Your task to perform on an android device: turn vacation reply on in the gmail app Image 0: 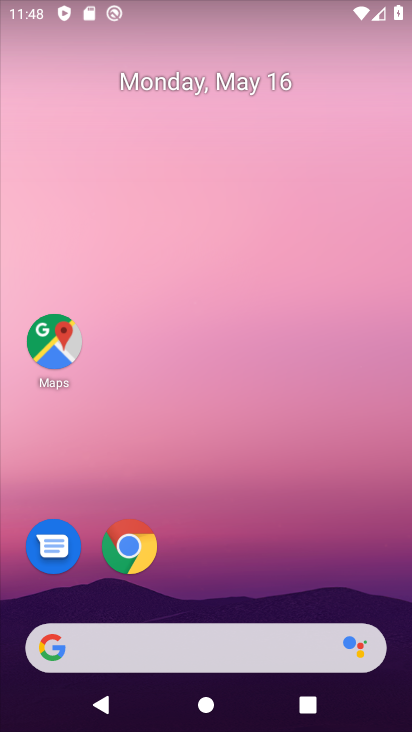
Step 0: drag from (396, 629) to (317, 36)
Your task to perform on an android device: turn vacation reply on in the gmail app Image 1: 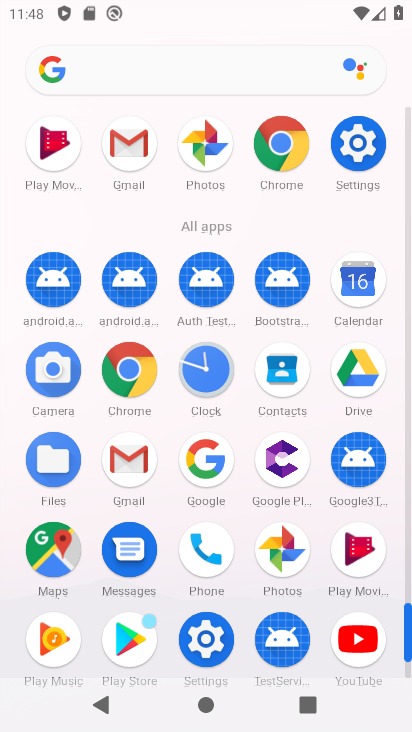
Step 1: click (408, 671)
Your task to perform on an android device: turn vacation reply on in the gmail app Image 2: 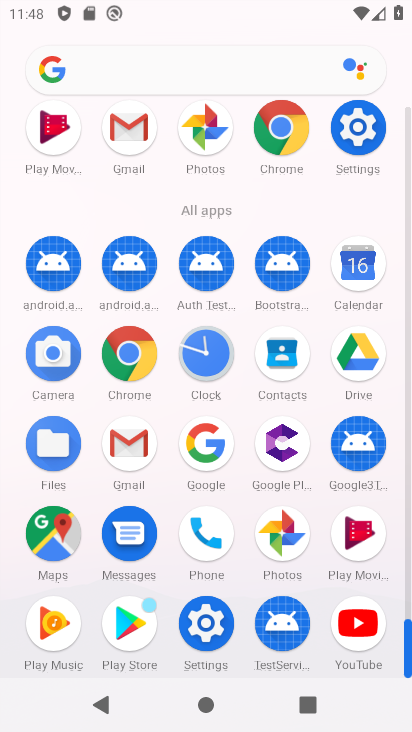
Step 2: click (127, 438)
Your task to perform on an android device: turn vacation reply on in the gmail app Image 3: 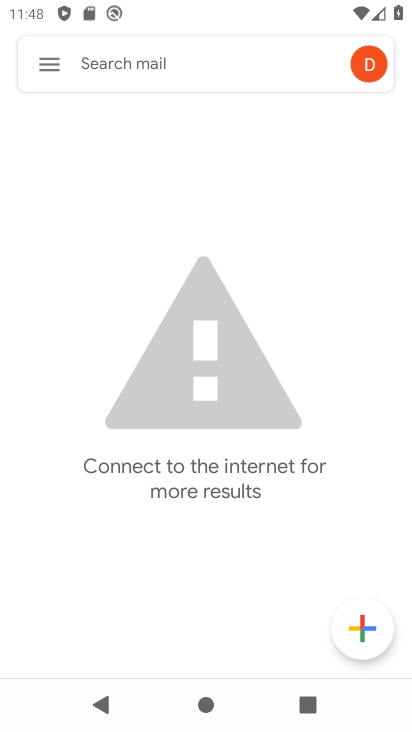
Step 3: click (47, 61)
Your task to perform on an android device: turn vacation reply on in the gmail app Image 4: 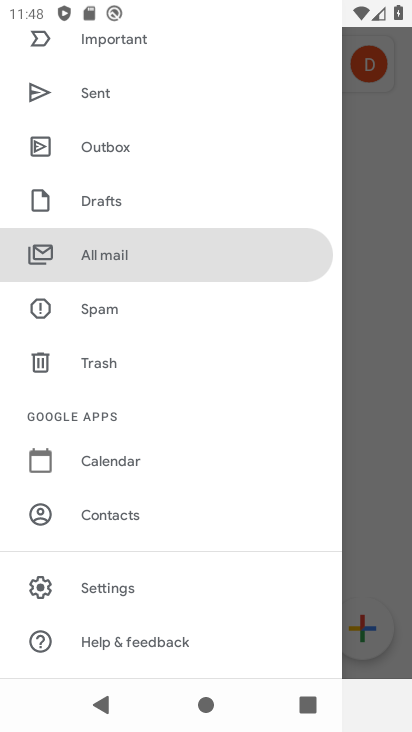
Step 4: click (113, 585)
Your task to perform on an android device: turn vacation reply on in the gmail app Image 5: 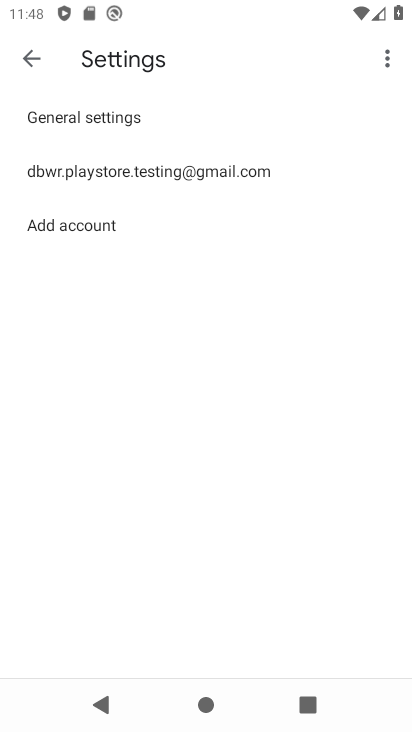
Step 5: click (113, 165)
Your task to perform on an android device: turn vacation reply on in the gmail app Image 6: 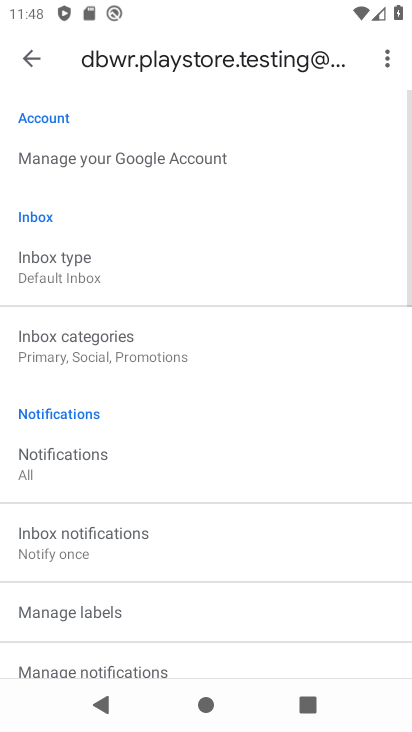
Step 6: drag from (205, 534) to (282, 69)
Your task to perform on an android device: turn vacation reply on in the gmail app Image 7: 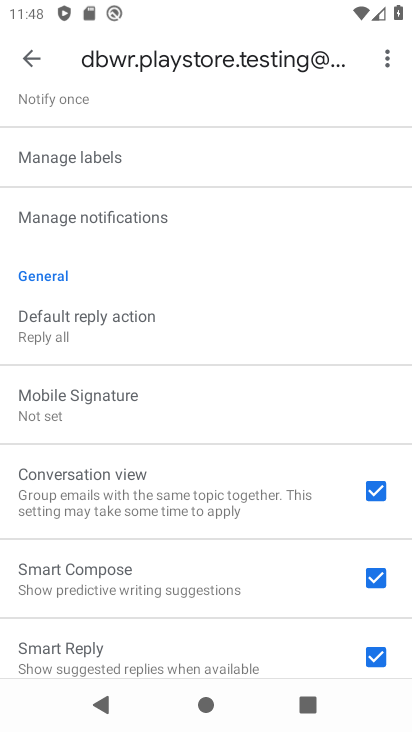
Step 7: drag from (258, 596) to (255, 145)
Your task to perform on an android device: turn vacation reply on in the gmail app Image 8: 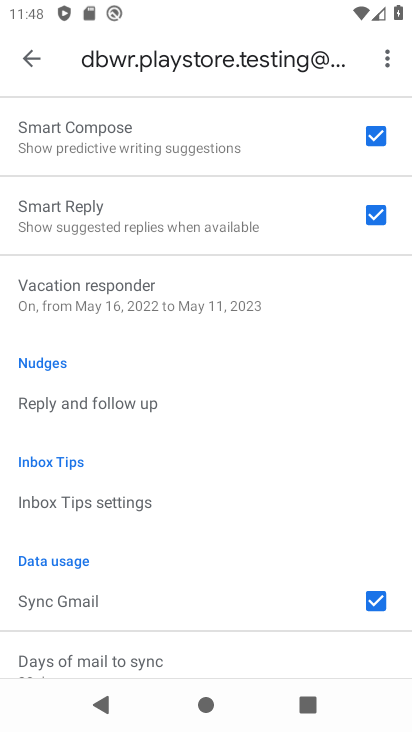
Step 8: click (130, 295)
Your task to perform on an android device: turn vacation reply on in the gmail app Image 9: 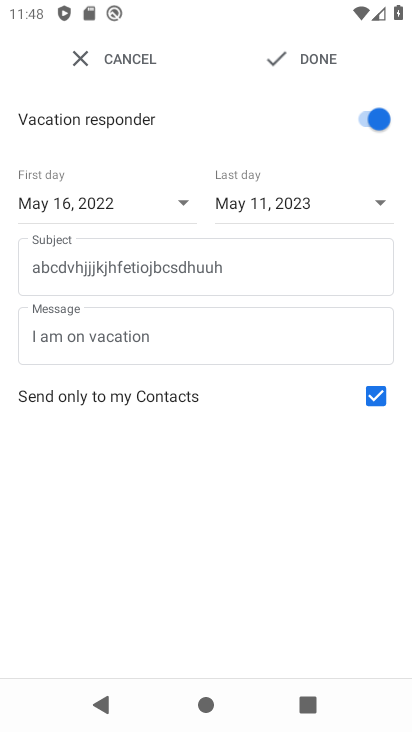
Step 9: task complete